Your task to perform on an android device: Clear all items from cart on target.com. Image 0: 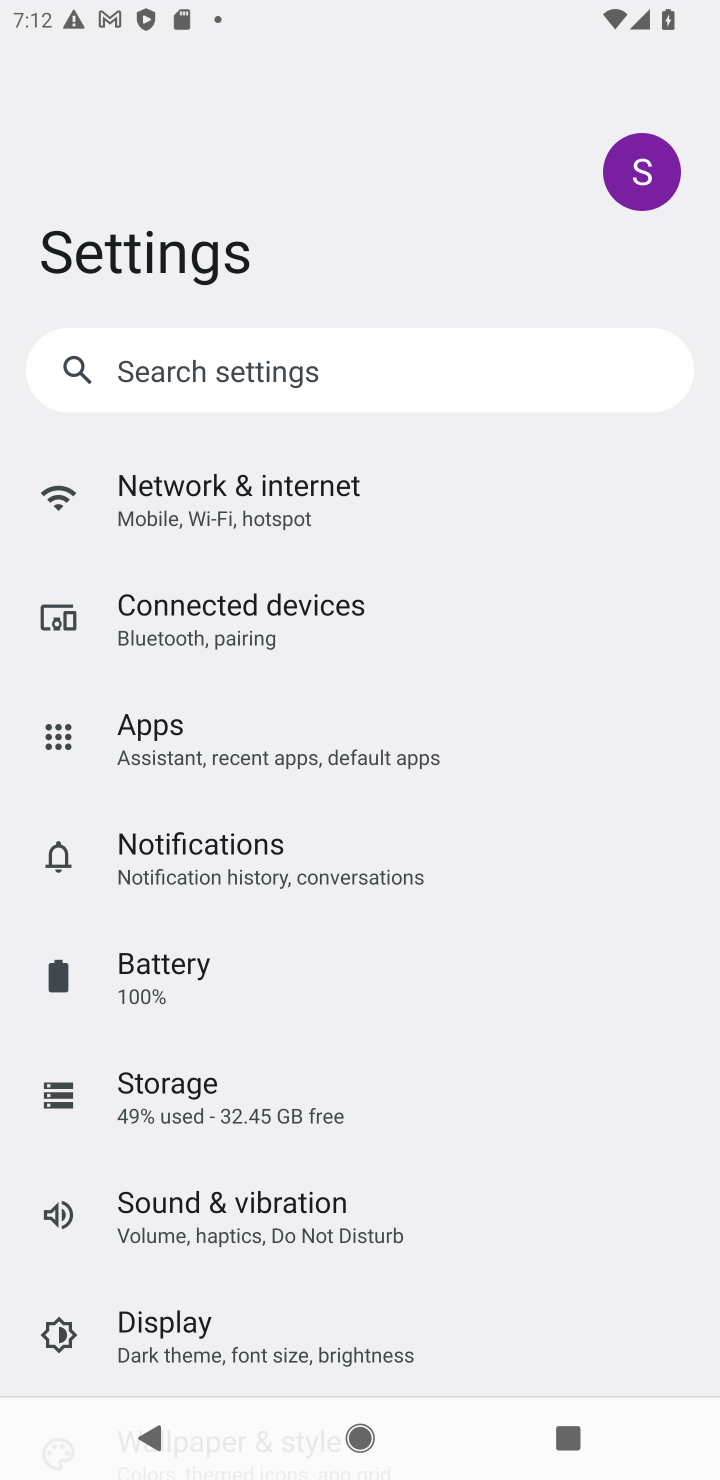
Step 0: press home button
Your task to perform on an android device: Clear all items from cart on target.com. Image 1: 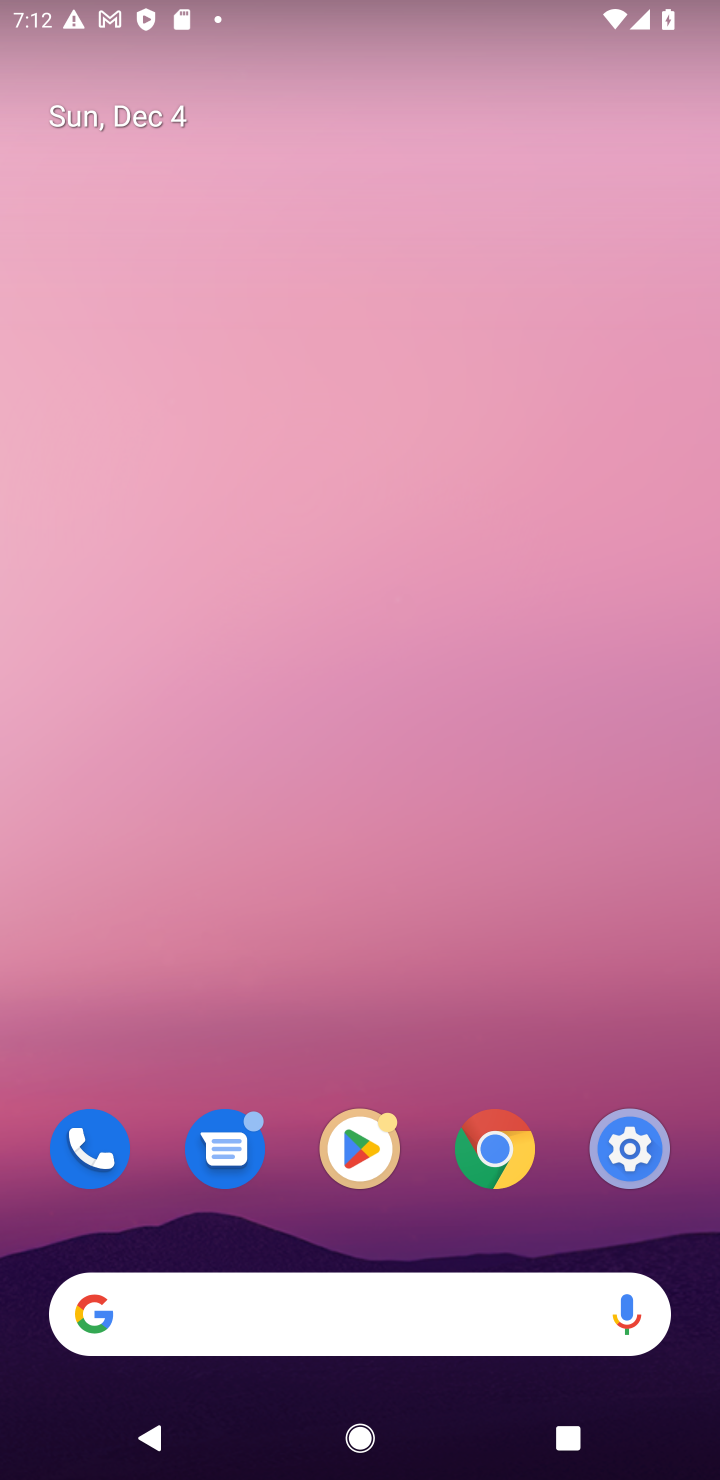
Step 1: drag from (320, 1193) to (320, 538)
Your task to perform on an android device: Clear all items from cart on target.com. Image 2: 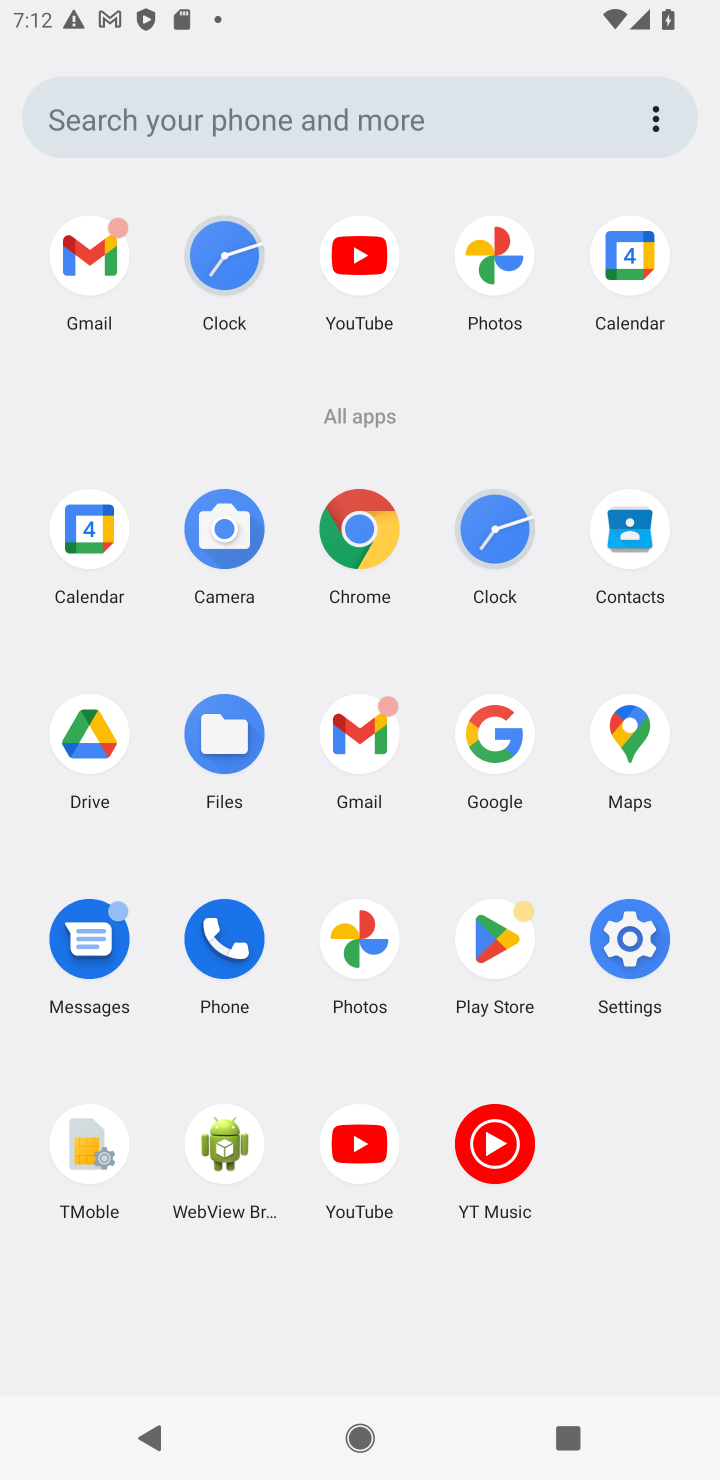
Step 2: click (505, 737)
Your task to perform on an android device: Clear all items from cart on target.com. Image 3: 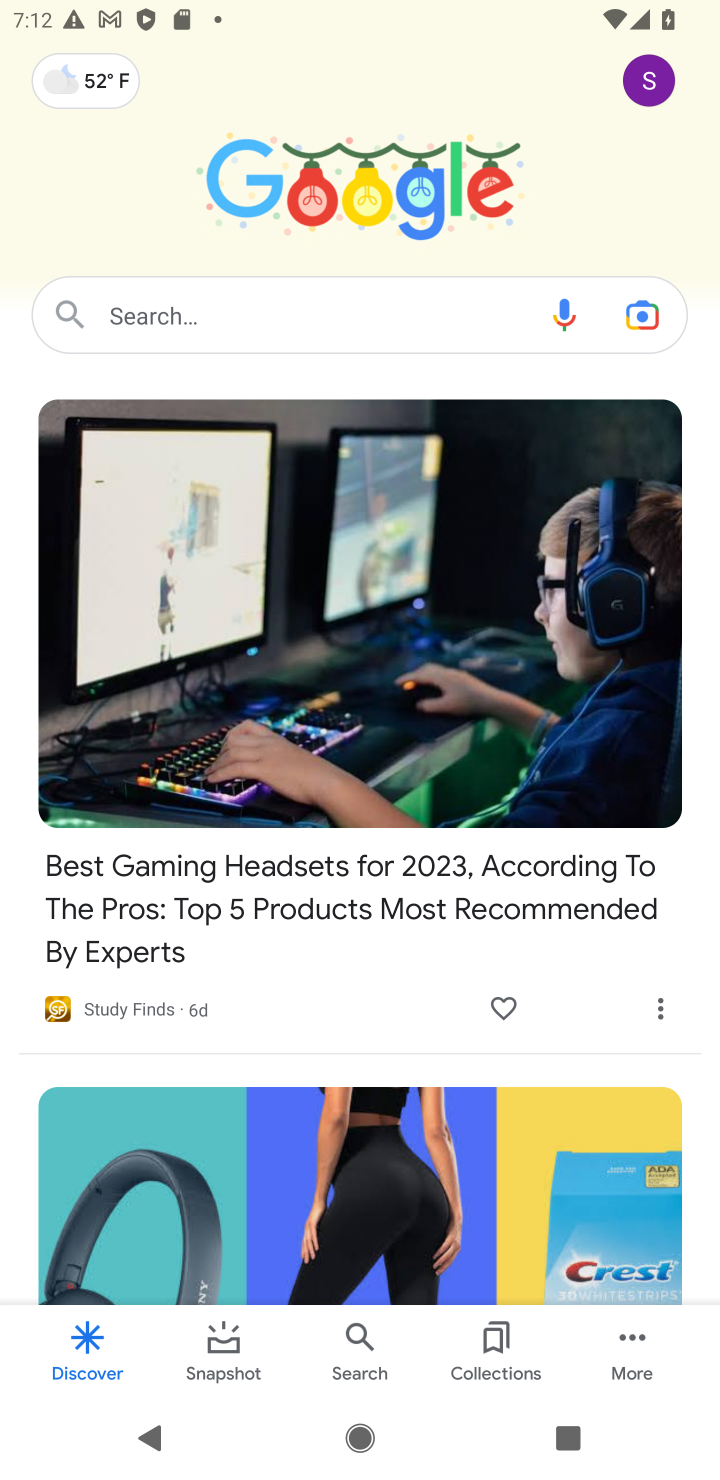
Step 3: click (332, 308)
Your task to perform on an android device: Clear all items from cart on target.com. Image 4: 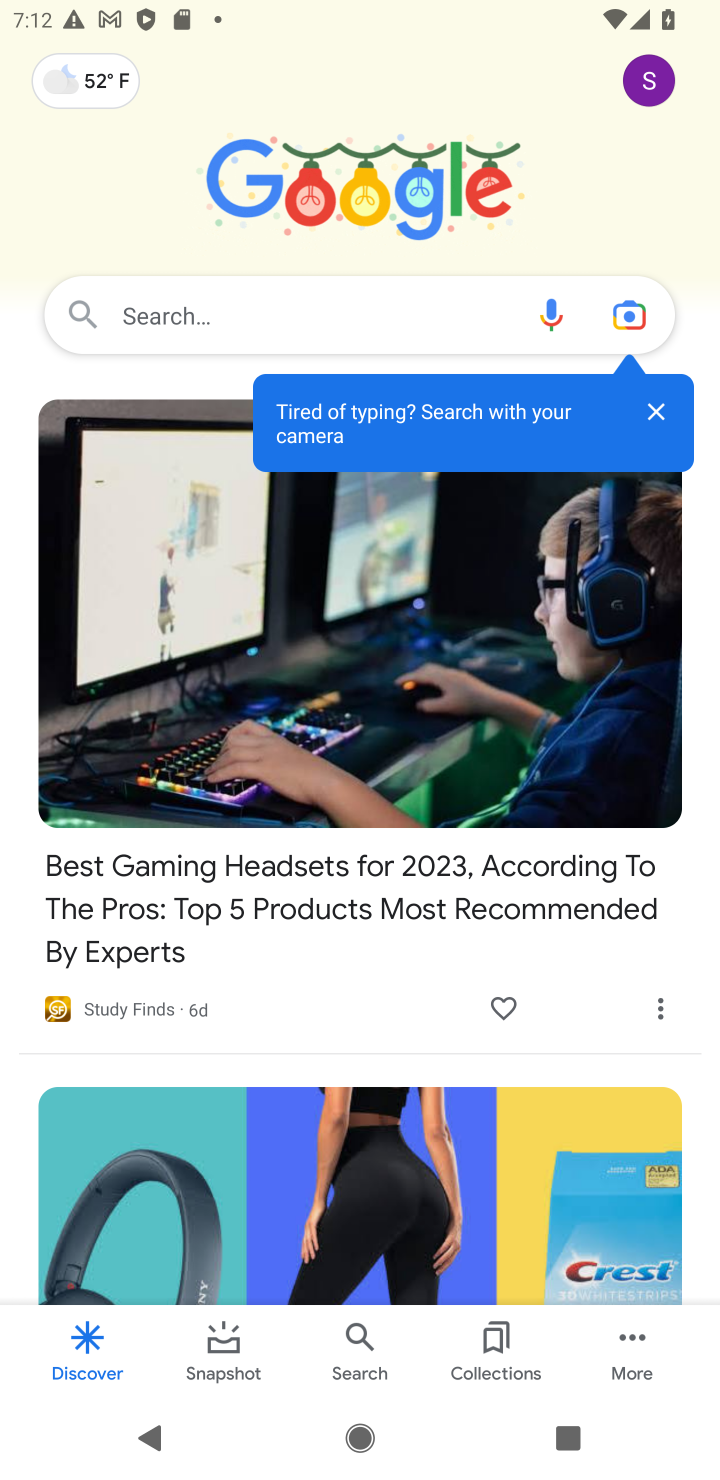
Step 4: click (322, 314)
Your task to perform on an android device: Clear all items from cart on target.com. Image 5: 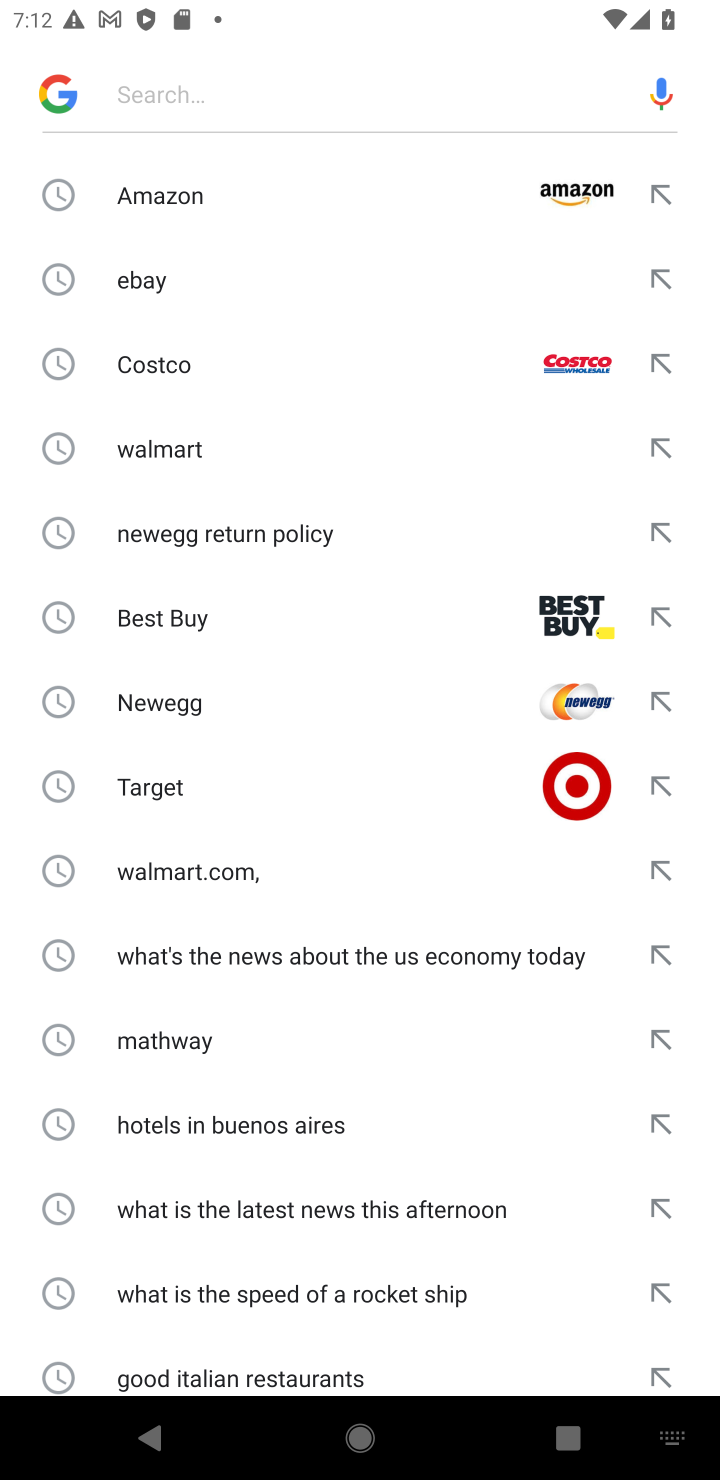
Step 5: click (172, 776)
Your task to perform on an android device: Clear all items from cart on target.com. Image 6: 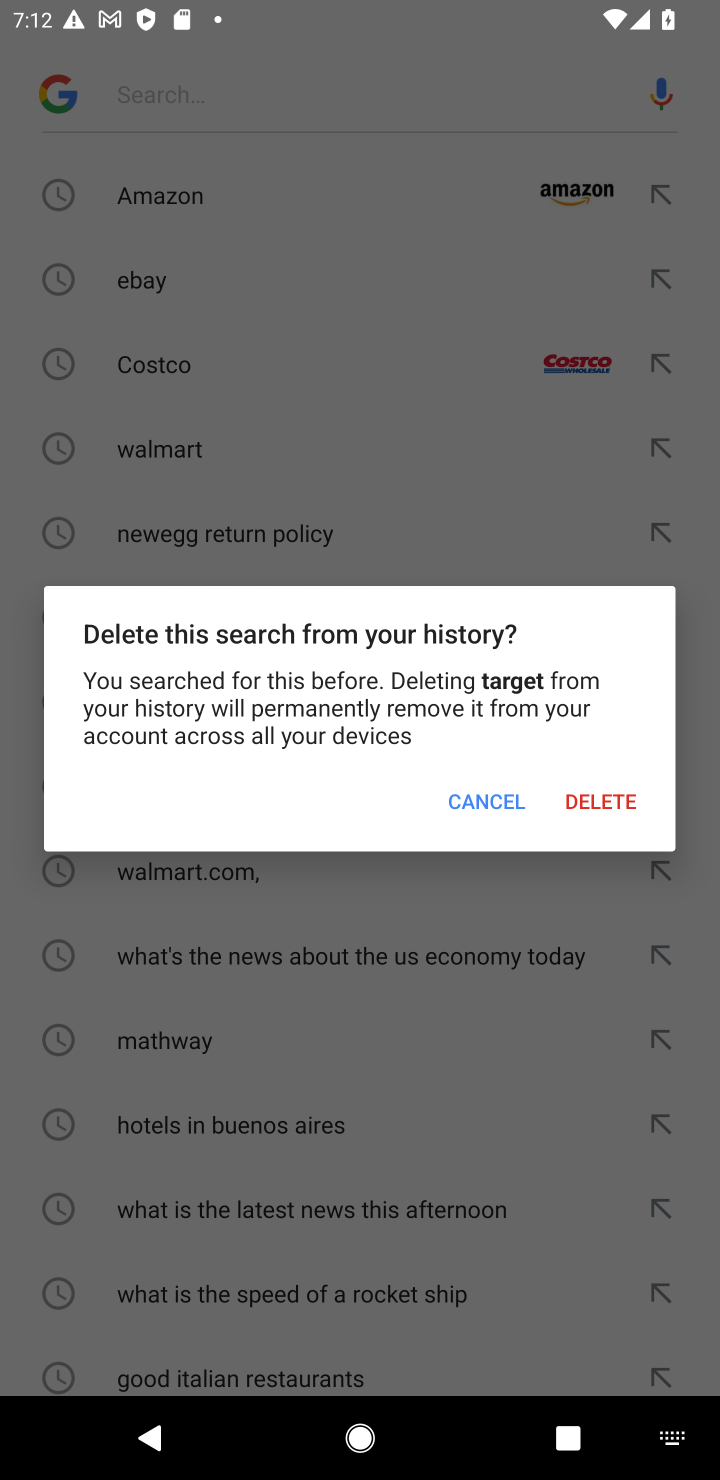
Step 6: click (514, 791)
Your task to perform on an android device: Clear all items from cart on target.com. Image 7: 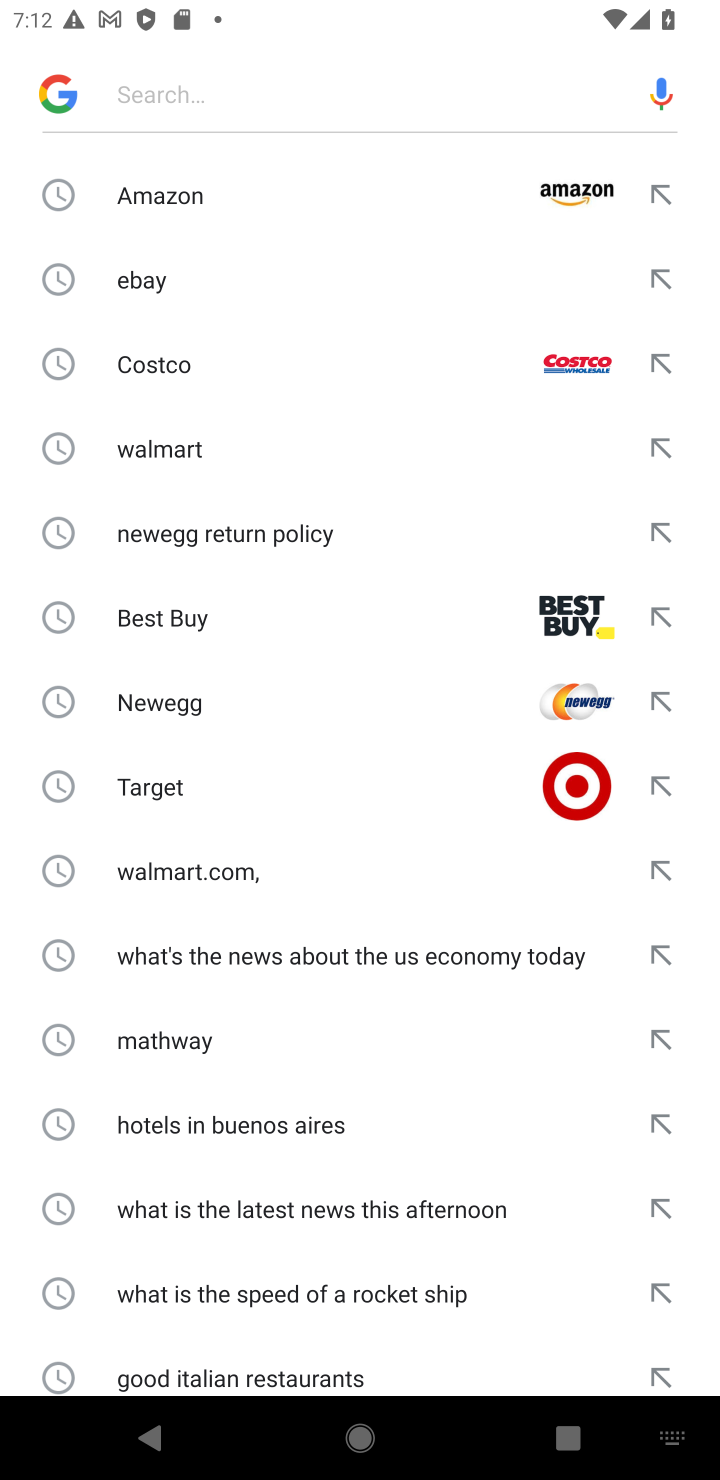
Step 7: click (160, 786)
Your task to perform on an android device: Clear all items from cart on target.com. Image 8: 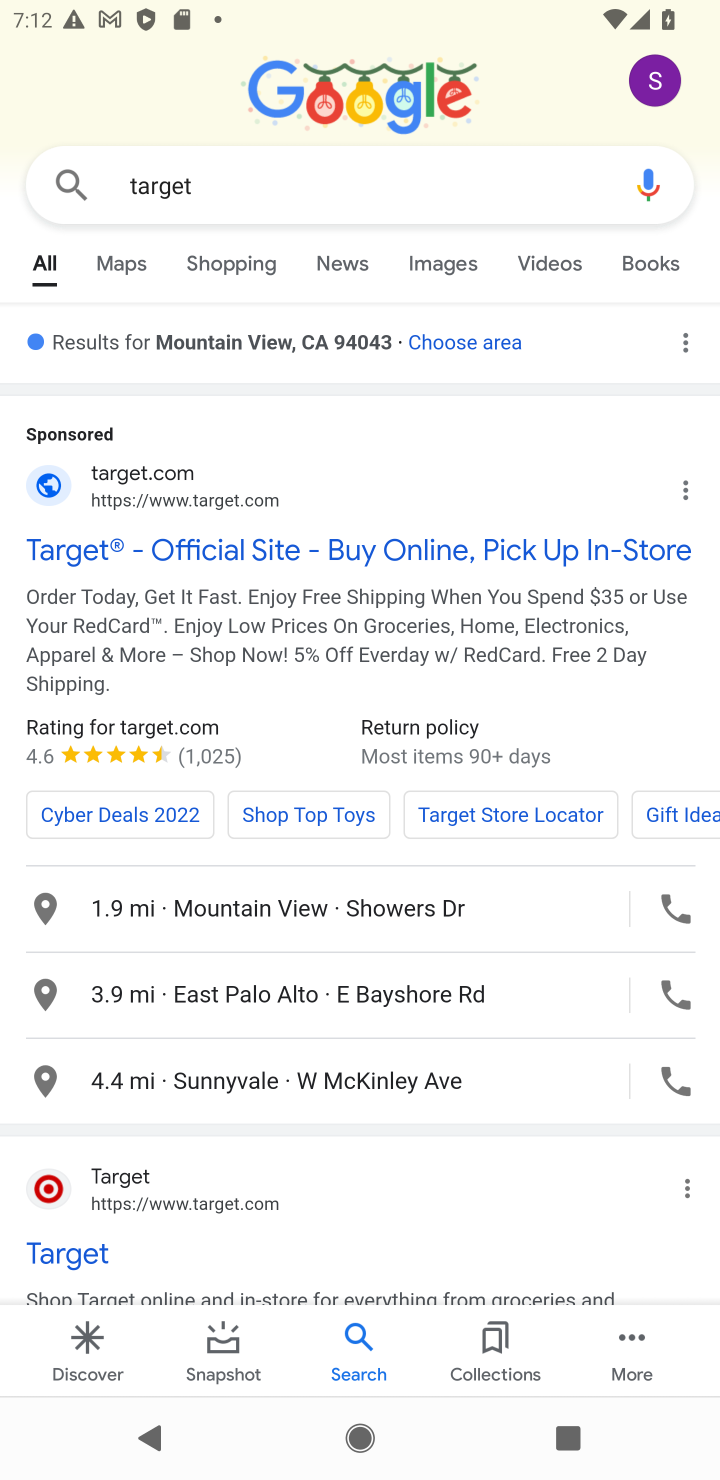
Step 8: click (504, 549)
Your task to perform on an android device: Clear all items from cart on target.com. Image 9: 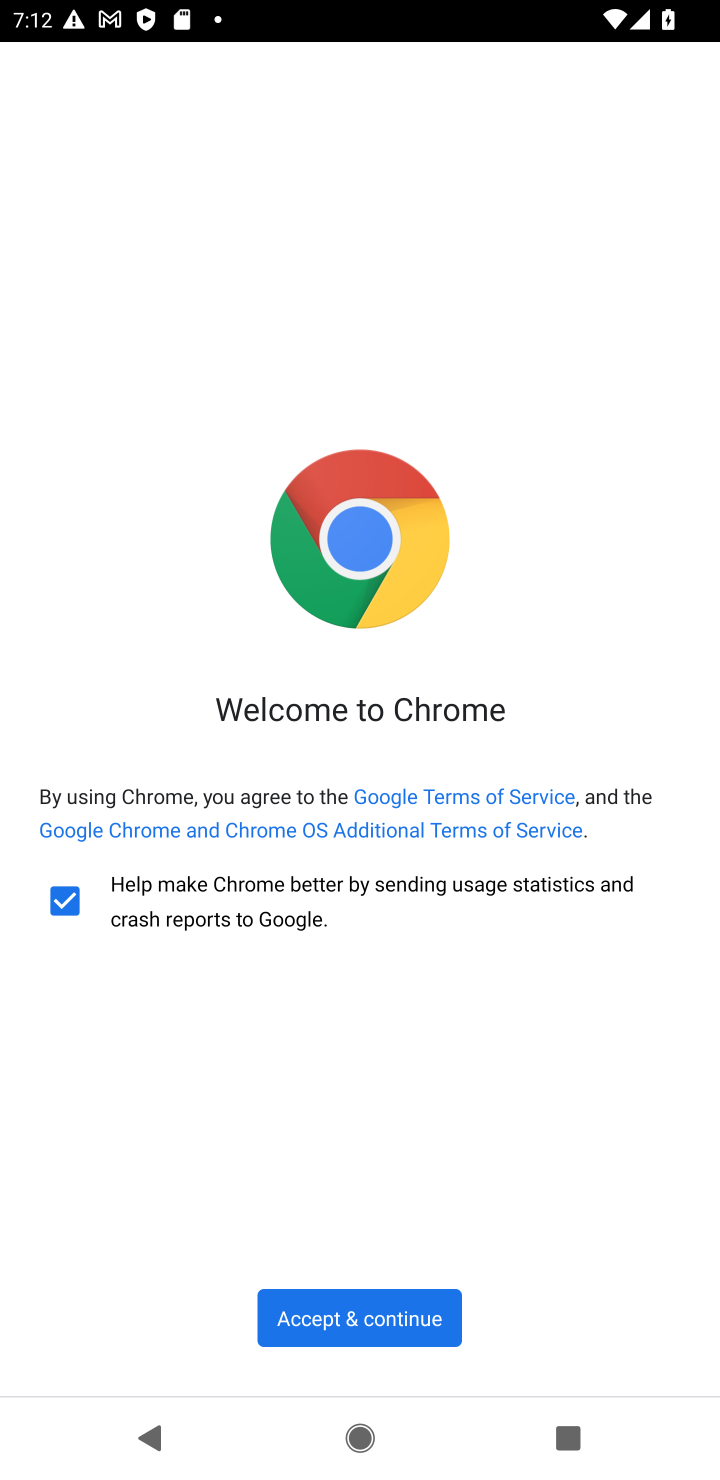
Step 9: click (316, 1325)
Your task to perform on an android device: Clear all items from cart on target.com. Image 10: 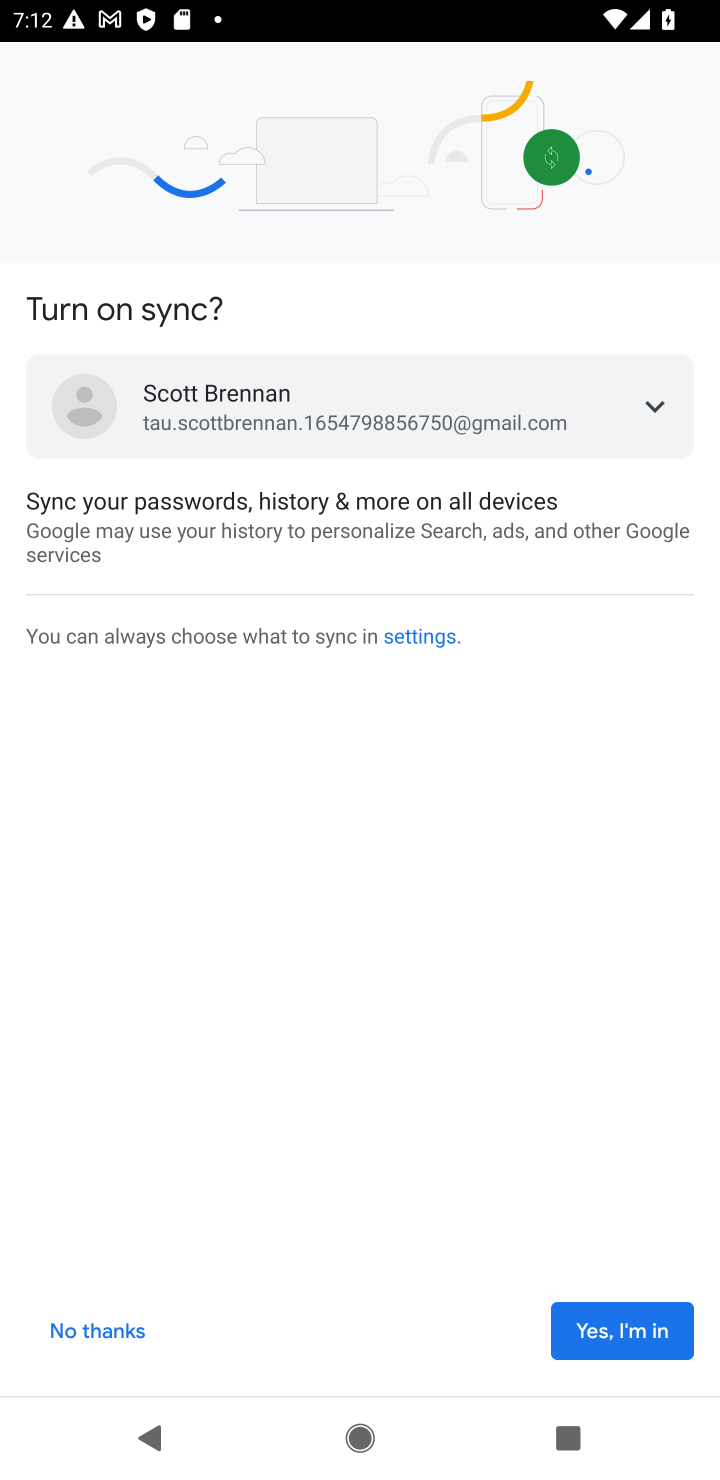
Step 10: click (661, 1330)
Your task to perform on an android device: Clear all items from cart on target.com. Image 11: 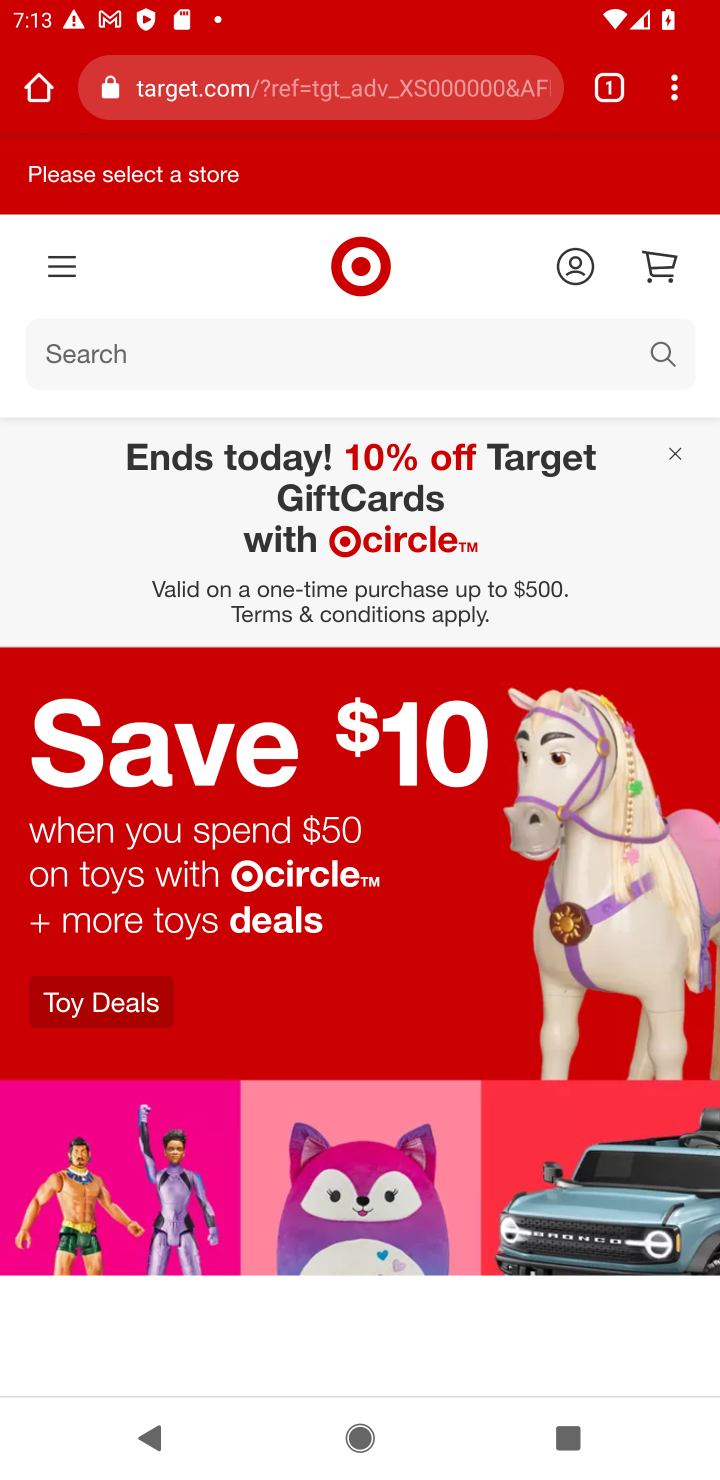
Step 11: task complete